Your task to perform on an android device: toggle wifi Image 0: 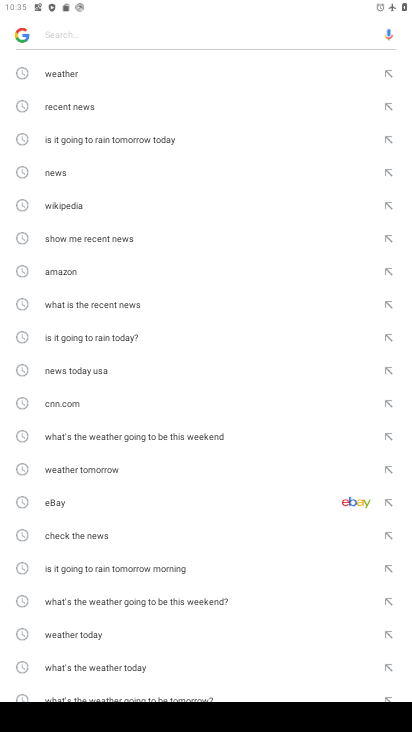
Step 0: press back button
Your task to perform on an android device: toggle wifi Image 1: 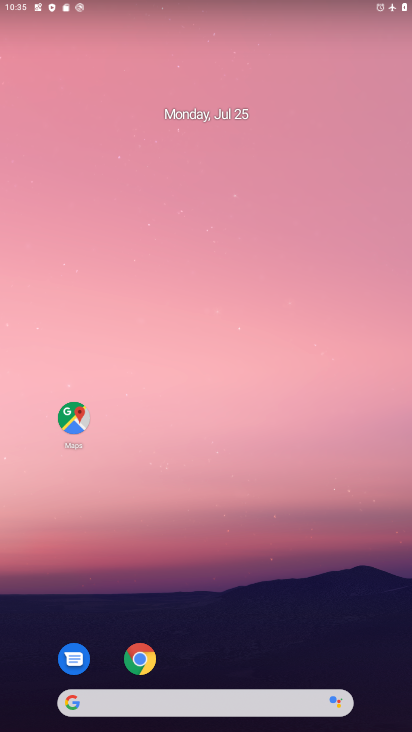
Step 1: drag from (204, 668) to (227, 10)
Your task to perform on an android device: toggle wifi Image 2: 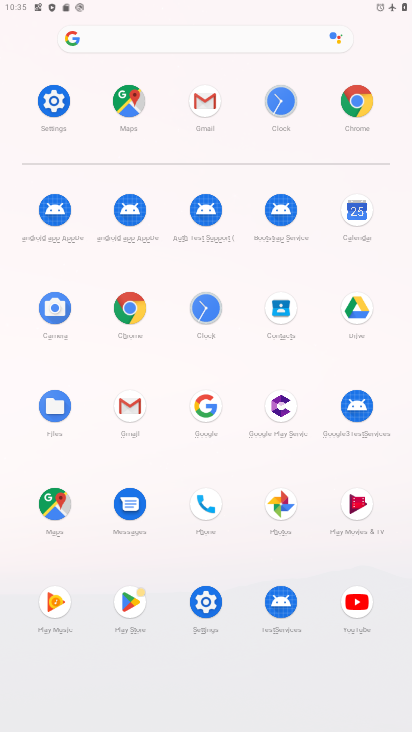
Step 2: click (41, 106)
Your task to perform on an android device: toggle wifi Image 3: 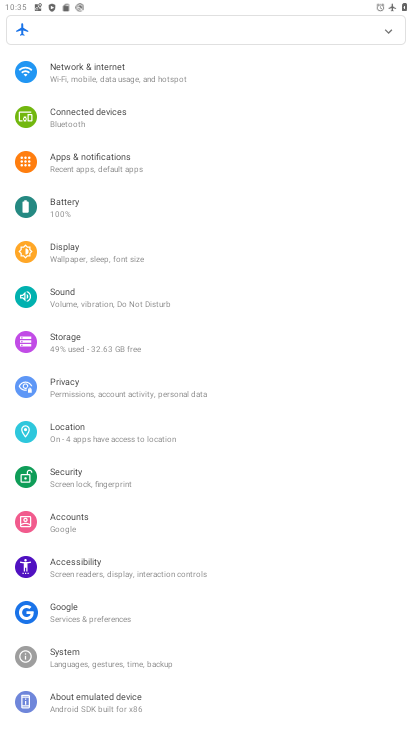
Step 3: click (101, 75)
Your task to perform on an android device: toggle wifi Image 4: 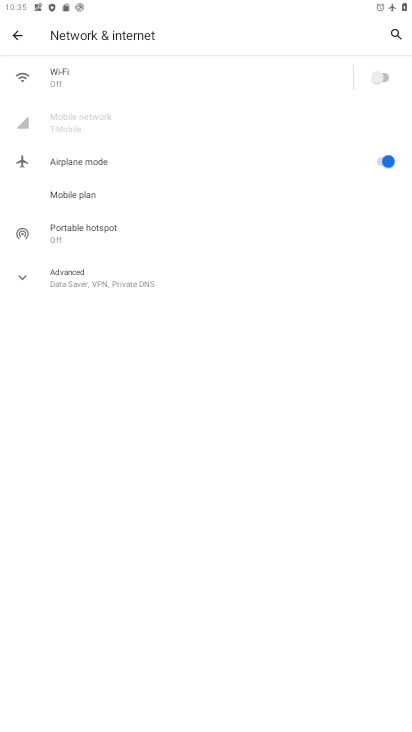
Step 4: click (378, 74)
Your task to perform on an android device: toggle wifi Image 5: 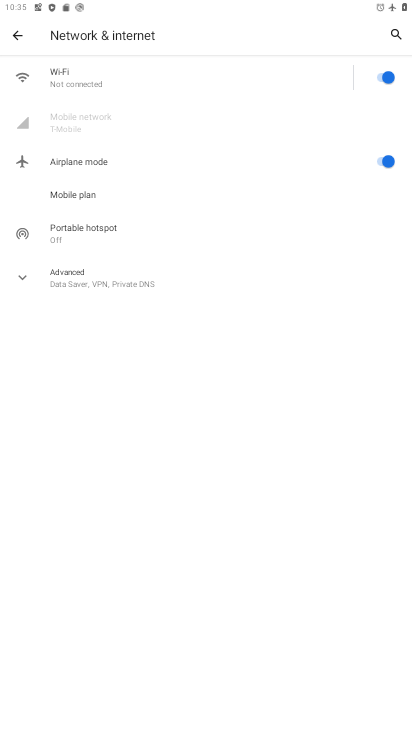
Step 5: task complete